Your task to perform on an android device: Go to wifi settings Image 0: 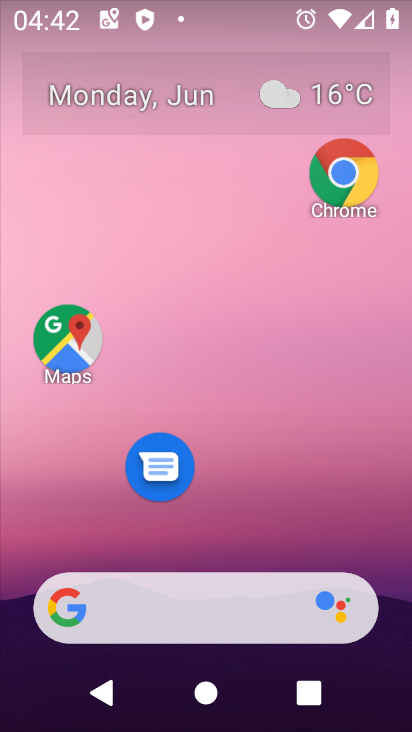
Step 0: drag from (267, 556) to (271, 1)
Your task to perform on an android device: Go to wifi settings Image 1: 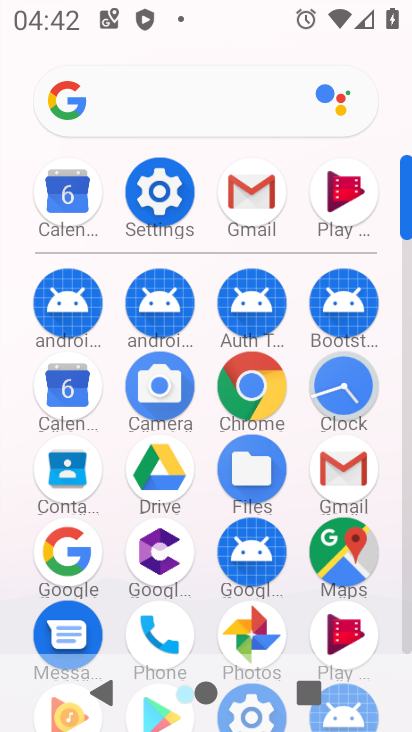
Step 1: click (159, 214)
Your task to perform on an android device: Go to wifi settings Image 2: 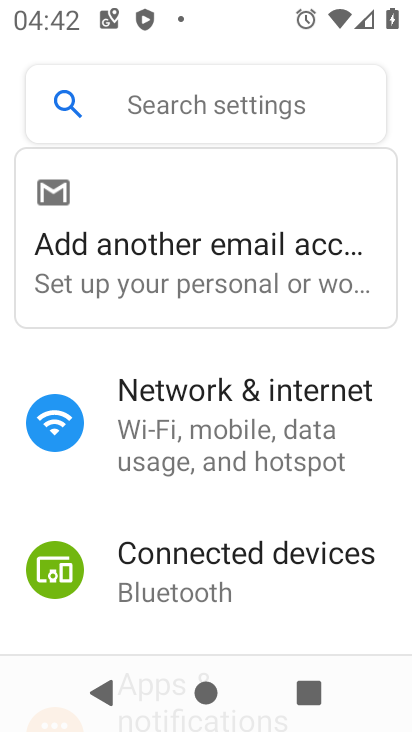
Step 2: click (261, 424)
Your task to perform on an android device: Go to wifi settings Image 3: 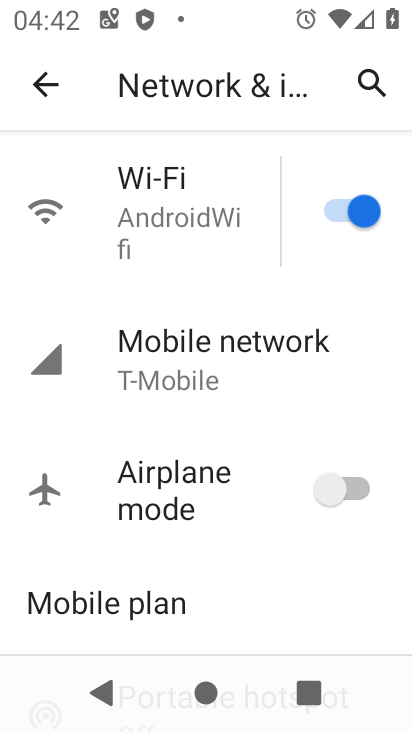
Step 3: click (176, 199)
Your task to perform on an android device: Go to wifi settings Image 4: 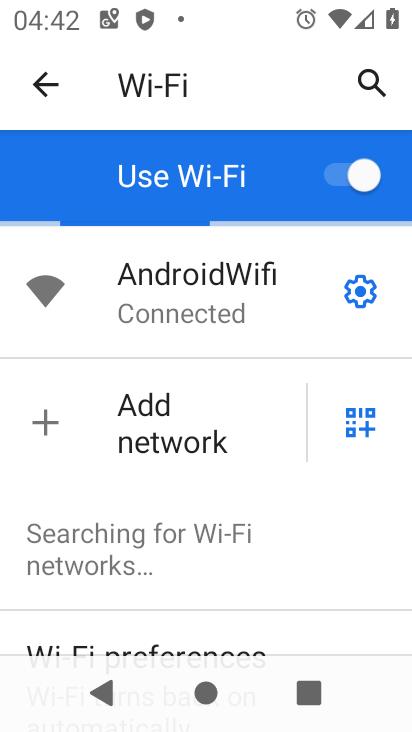
Step 4: task complete